Your task to perform on an android device: Open Chrome and go to the settings page Image 0: 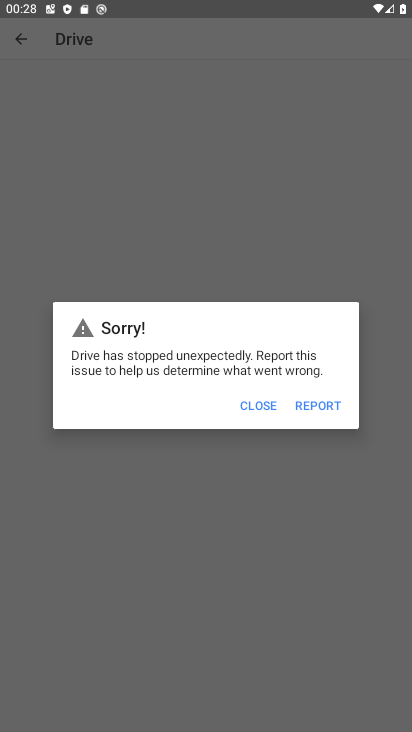
Step 0: press home button
Your task to perform on an android device: Open Chrome and go to the settings page Image 1: 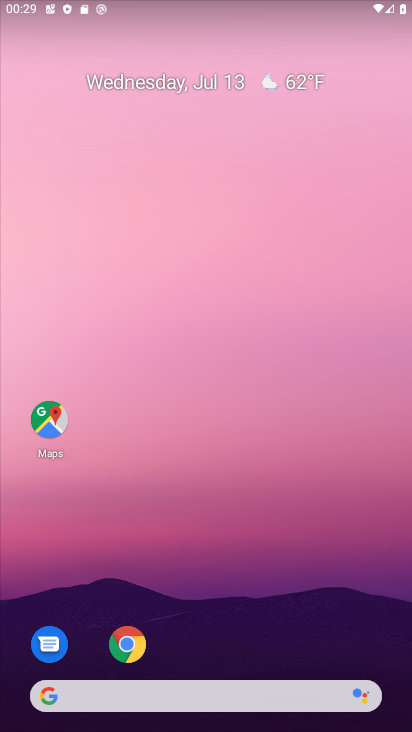
Step 1: click (145, 646)
Your task to perform on an android device: Open Chrome and go to the settings page Image 2: 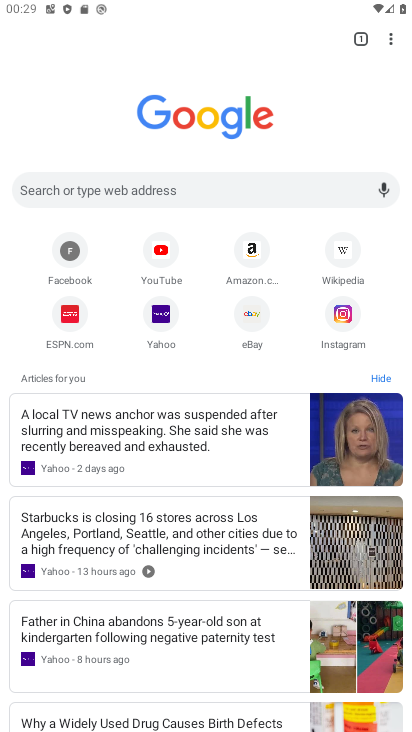
Step 2: click (313, 112)
Your task to perform on an android device: Open Chrome and go to the settings page Image 3: 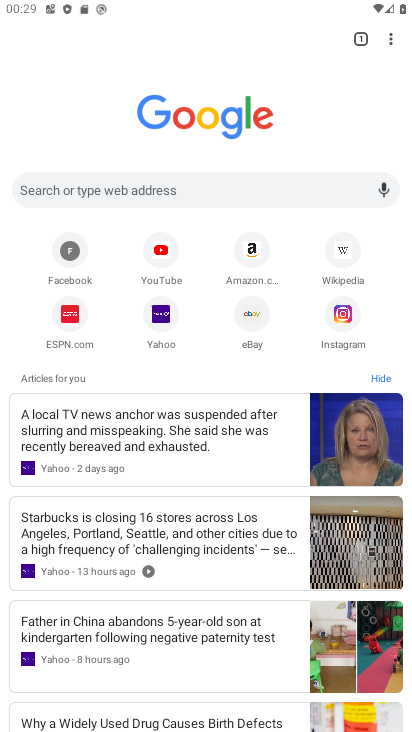
Step 3: click (389, 46)
Your task to perform on an android device: Open Chrome and go to the settings page Image 4: 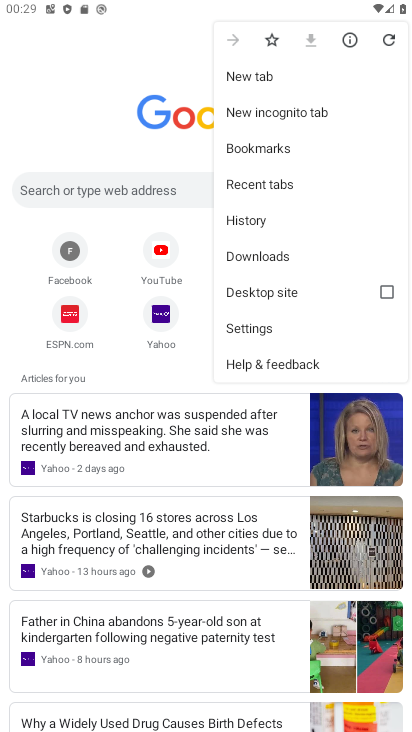
Step 4: click (266, 333)
Your task to perform on an android device: Open Chrome and go to the settings page Image 5: 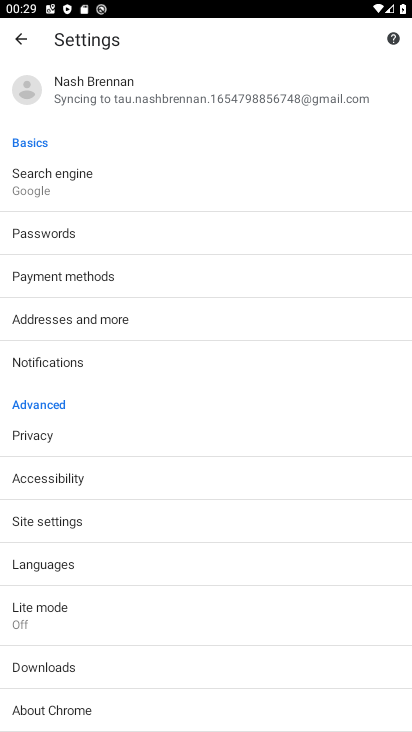
Step 5: task complete